Your task to perform on an android device: Find coffee shops on Maps Image 0: 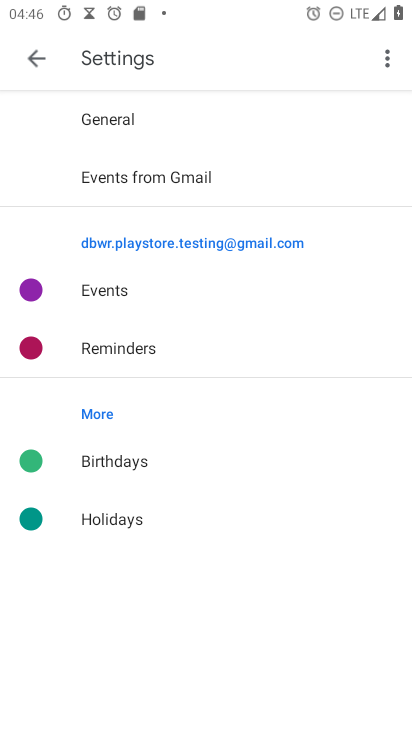
Step 0: press home button
Your task to perform on an android device: Find coffee shops on Maps Image 1: 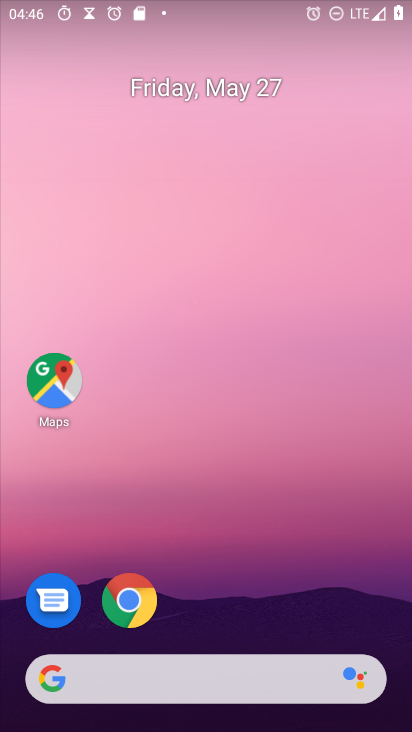
Step 1: drag from (236, 721) to (230, 155)
Your task to perform on an android device: Find coffee shops on Maps Image 2: 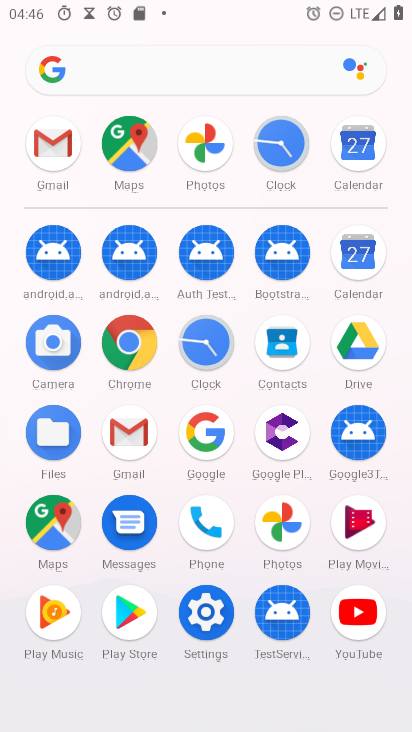
Step 2: click (40, 518)
Your task to perform on an android device: Find coffee shops on Maps Image 3: 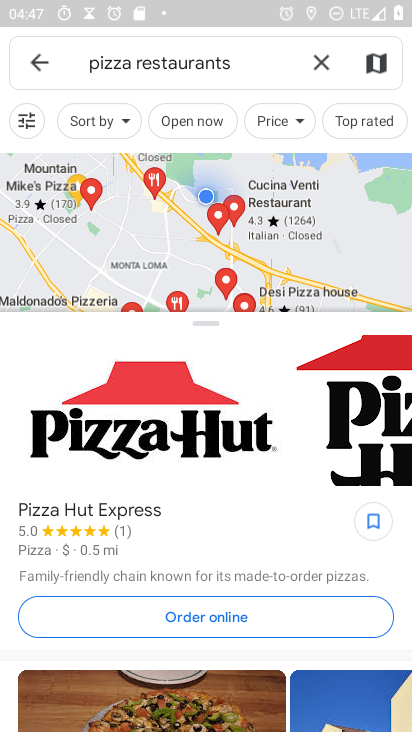
Step 3: click (321, 55)
Your task to perform on an android device: Find coffee shops on Maps Image 4: 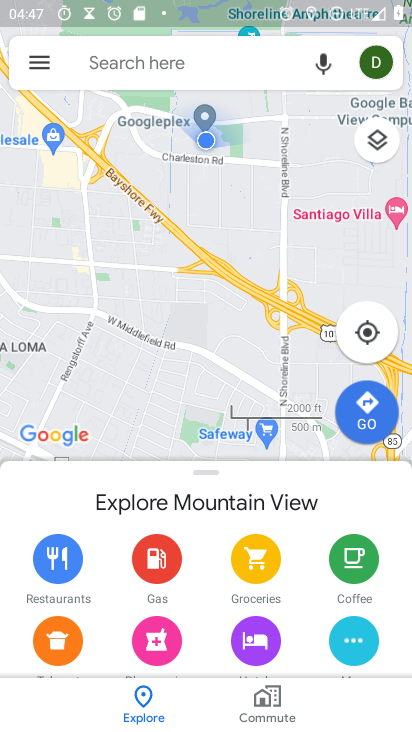
Step 4: click (207, 58)
Your task to perform on an android device: Find coffee shops on Maps Image 5: 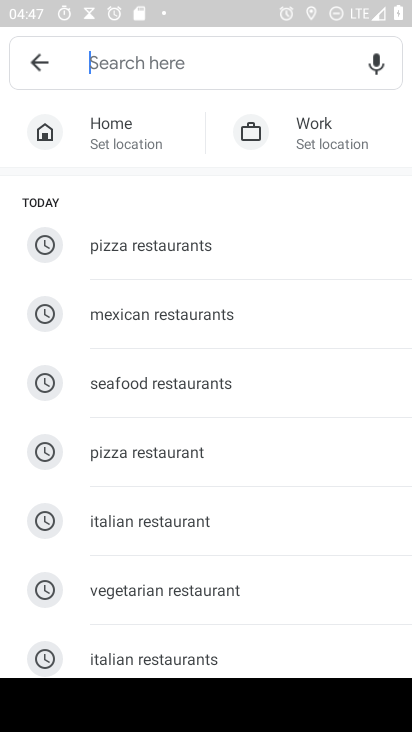
Step 5: type "coffee shops "
Your task to perform on an android device: Find coffee shops on Maps Image 6: 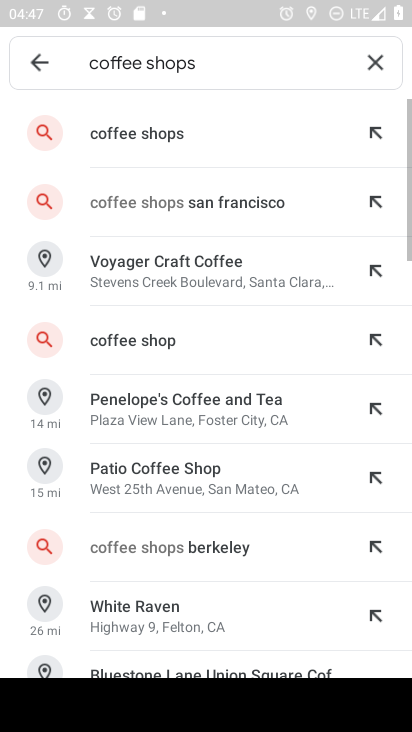
Step 6: click (144, 132)
Your task to perform on an android device: Find coffee shops on Maps Image 7: 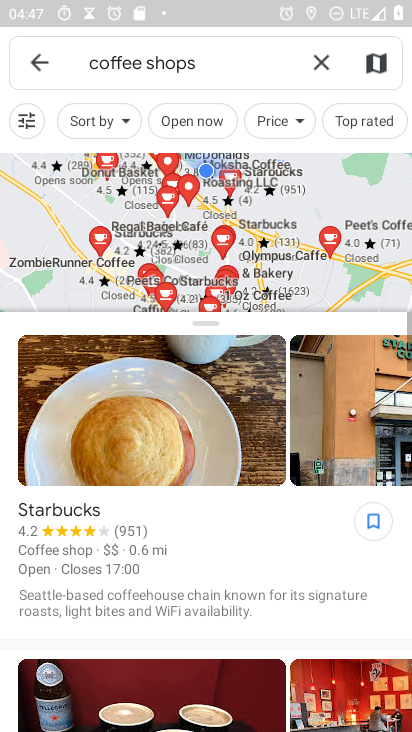
Step 7: task complete